Your task to perform on an android device: Open ESPN.com Image 0: 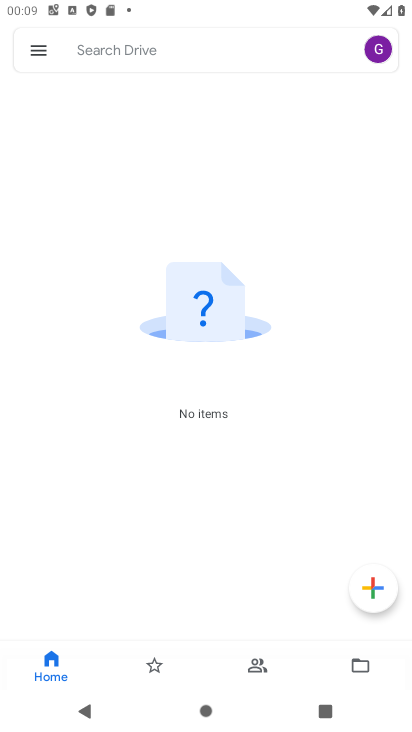
Step 0: press home button
Your task to perform on an android device: Open ESPN.com Image 1: 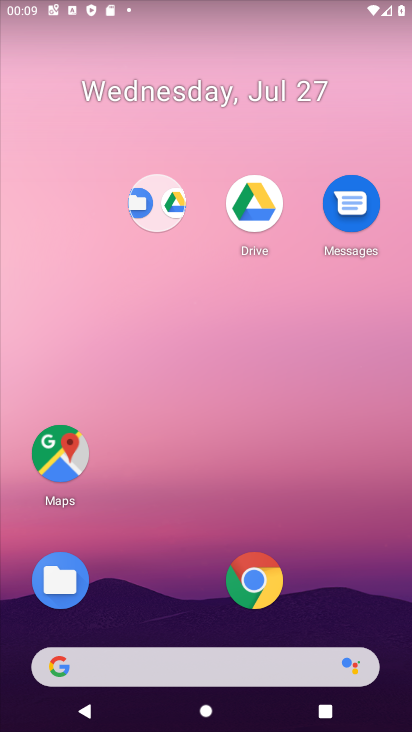
Step 1: click (256, 574)
Your task to perform on an android device: Open ESPN.com Image 2: 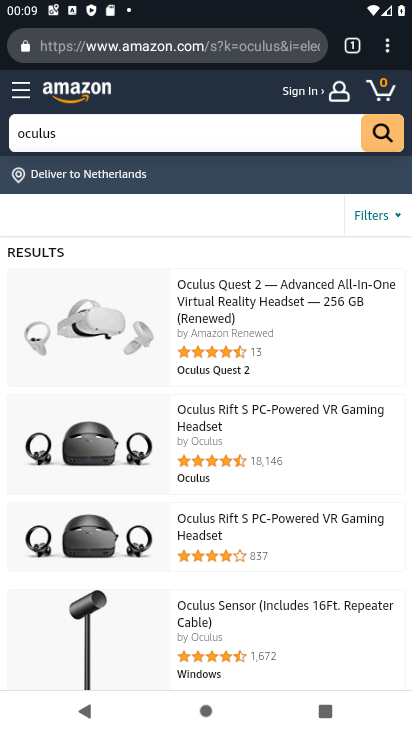
Step 2: click (353, 52)
Your task to perform on an android device: Open ESPN.com Image 3: 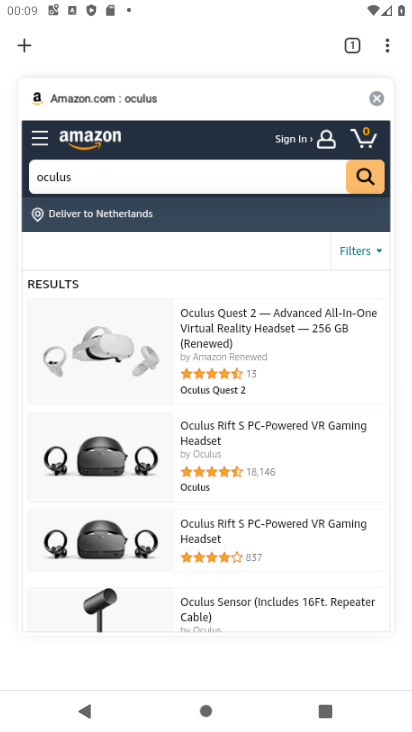
Step 3: click (25, 52)
Your task to perform on an android device: Open ESPN.com Image 4: 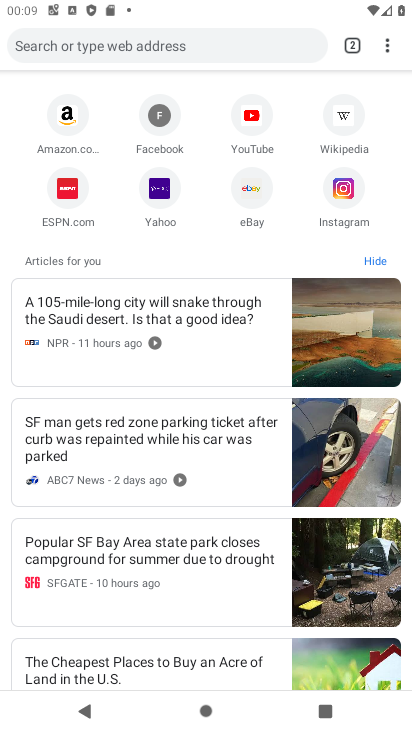
Step 4: click (79, 206)
Your task to perform on an android device: Open ESPN.com Image 5: 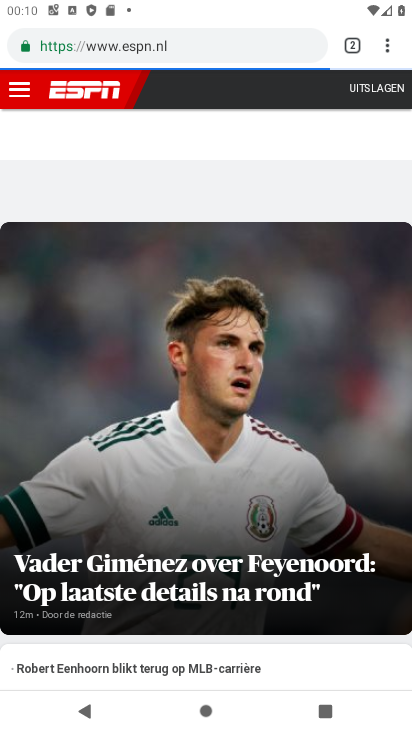
Step 5: task complete